Your task to perform on an android device: open a bookmark in the chrome app Image 0: 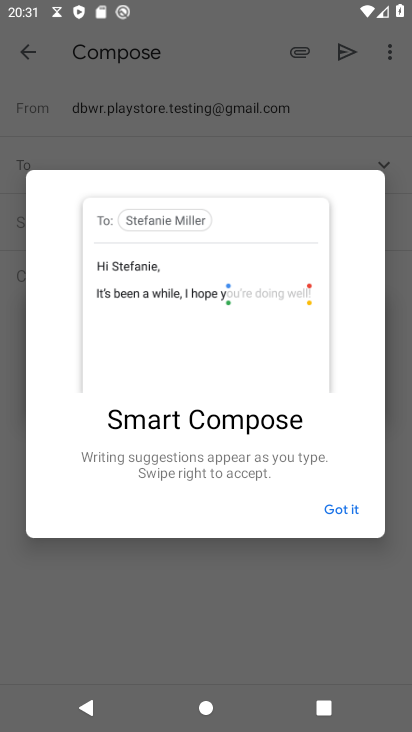
Step 0: press home button
Your task to perform on an android device: open a bookmark in the chrome app Image 1: 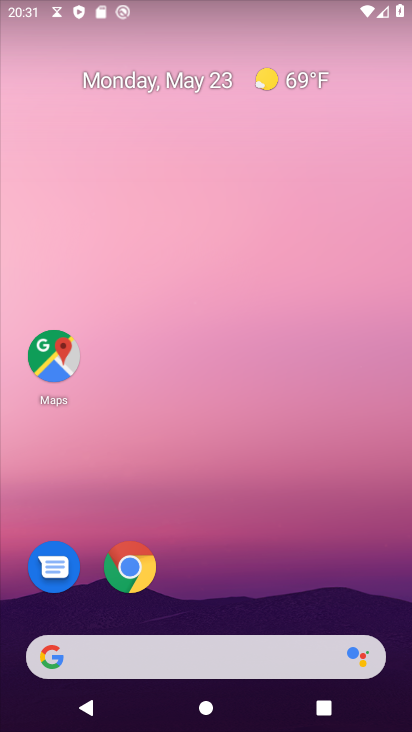
Step 1: click (138, 566)
Your task to perform on an android device: open a bookmark in the chrome app Image 2: 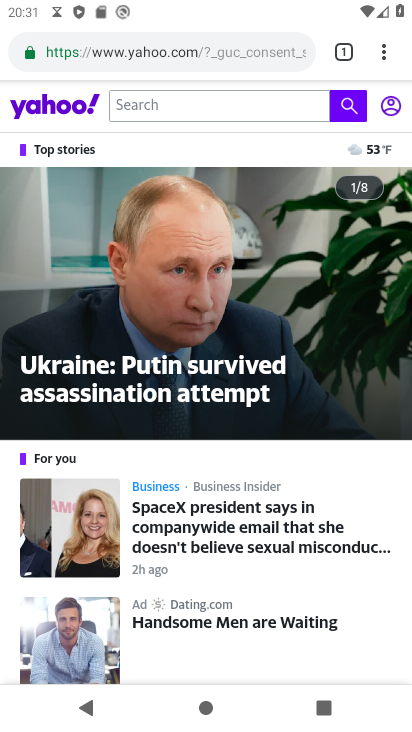
Step 2: click (382, 56)
Your task to perform on an android device: open a bookmark in the chrome app Image 3: 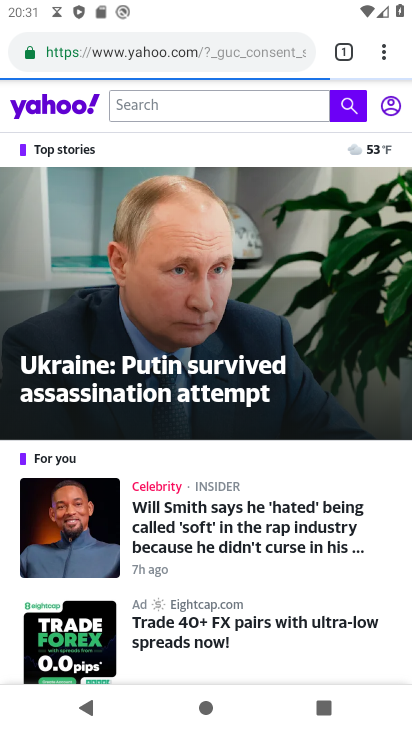
Step 3: click (385, 60)
Your task to perform on an android device: open a bookmark in the chrome app Image 4: 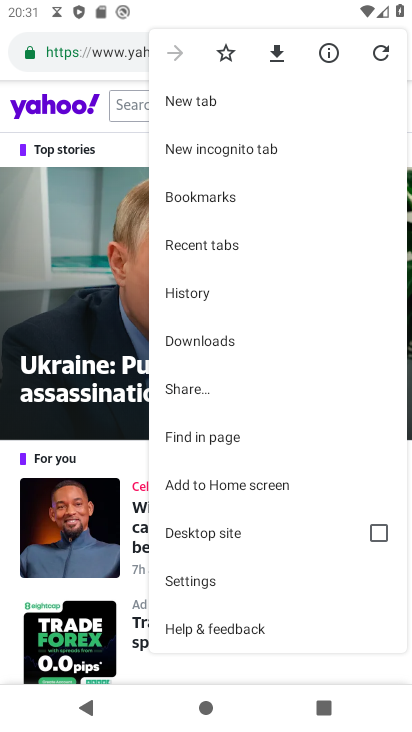
Step 4: click (218, 203)
Your task to perform on an android device: open a bookmark in the chrome app Image 5: 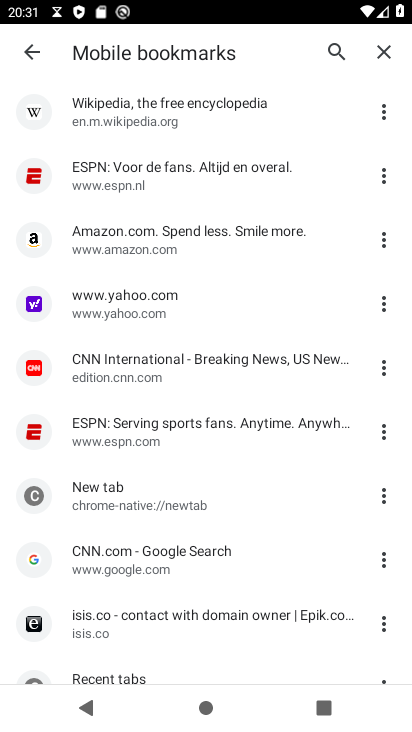
Step 5: click (169, 176)
Your task to perform on an android device: open a bookmark in the chrome app Image 6: 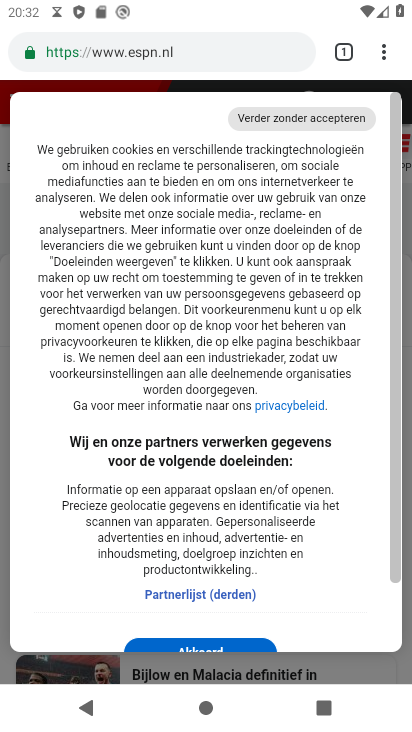
Step 6: task complete